Your task to perform on an android device: change the upload size in google photos Image 0: 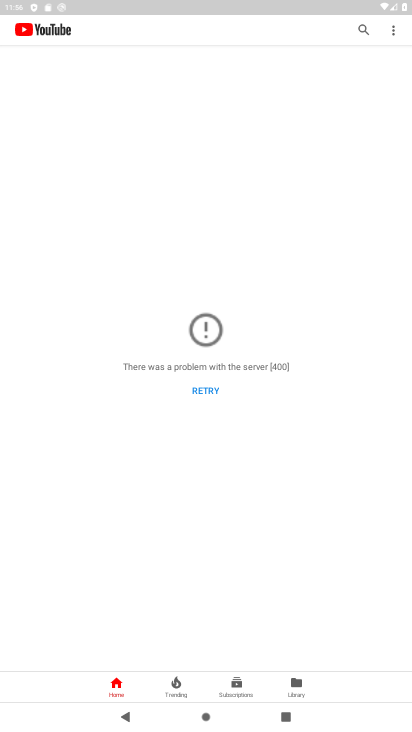
Step 0: drag from (256, 550) to (256, 330)
Your task to perform on an android device: change the upload size in google photos Image 1: 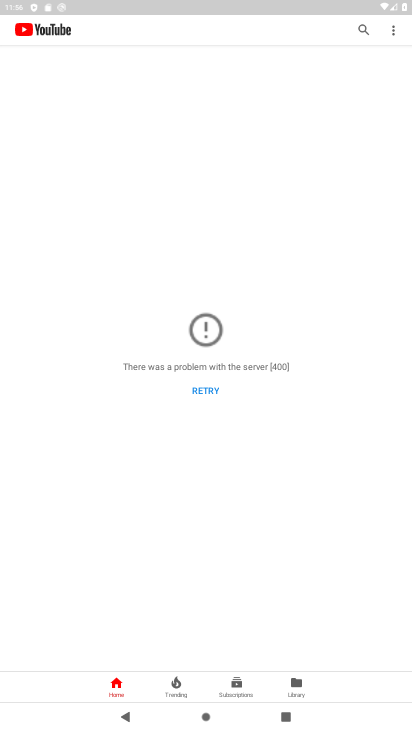
Step 1: press home button
Your task to perform on an android device: change the upload size in google photos Image 2: 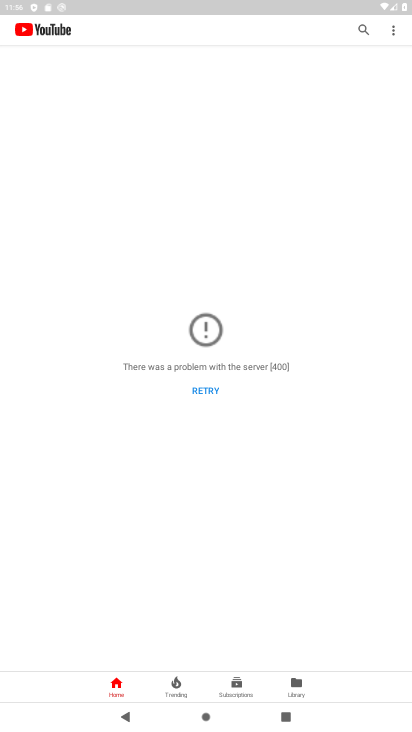
Step 2: drag from (178, 690) to (242, 185)
Your task to perform on an android device: change the upload size in google photos Image 3: 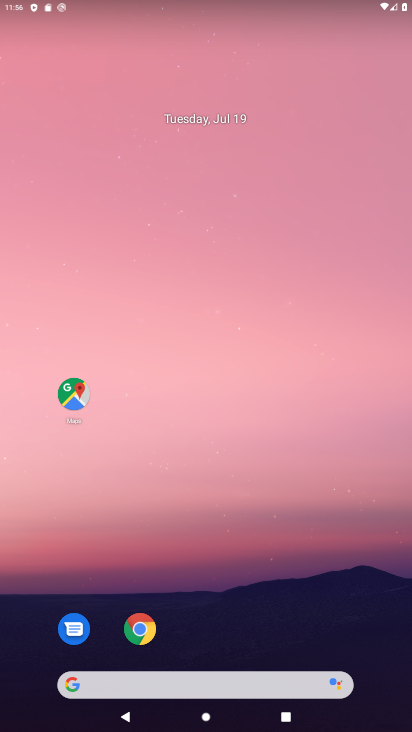
Step 3: drag from (231, 567) to (260, 180)
Your task to perform on an android device: change the upload size in google photos Image 4: 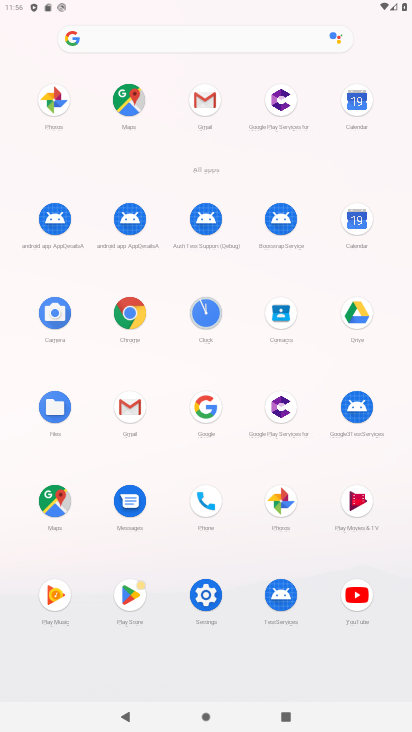
Step 4: click (280, 497)
Your task to perform on an android device: change the upload size in google photos Image 5: 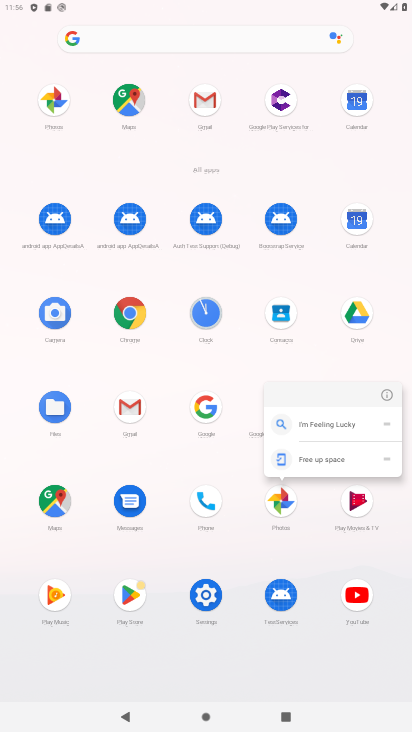
Step 5: click (378, 399)
Your task to perform on an android device: change the upload size in google photos Image 6: 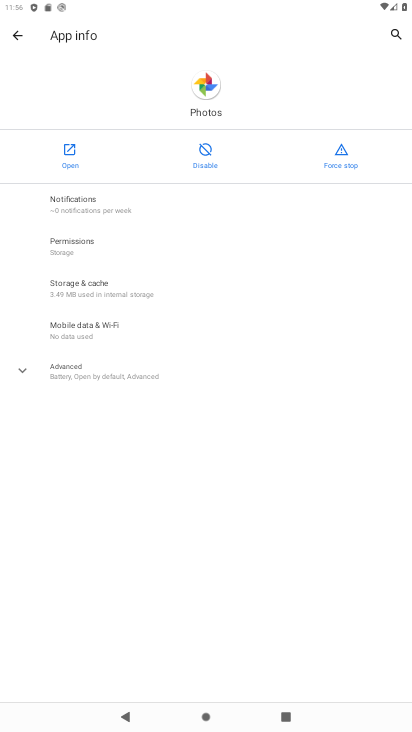
Step 6: click (61, 160)
Your task to perform on an android device: change the upload size in google photos Image 7: 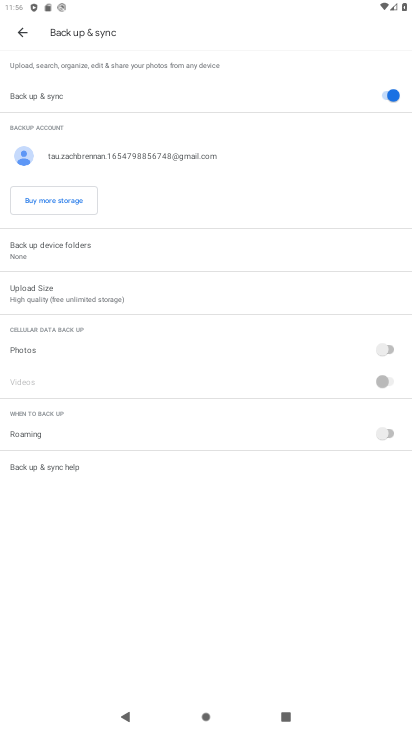
Step 7: click (113, 295)
Your task to perform on an android device: change the upload size in google photos Image 8: 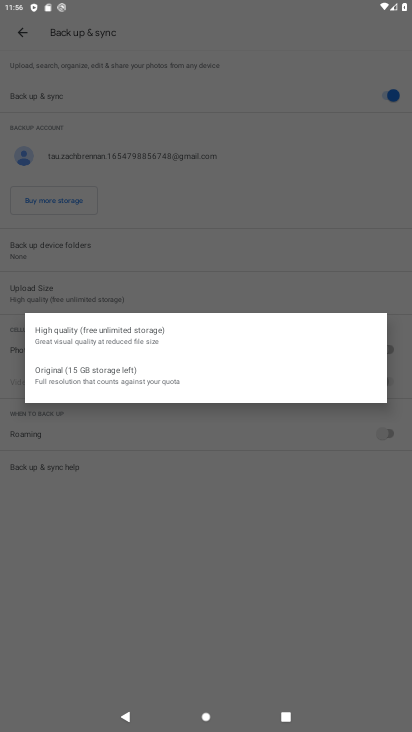
Step 8: click (95, 330)
Your task to perform on an android device: change the upload size in google photos Image 9: 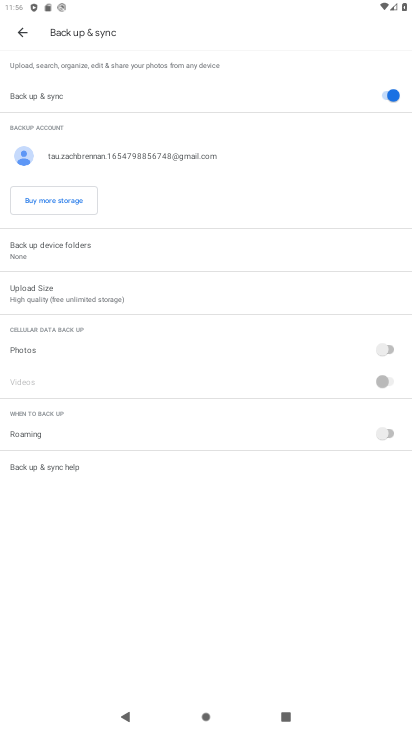
Step 9: task complete